Your task to perform on an android device: Open CNN.com Image 0: 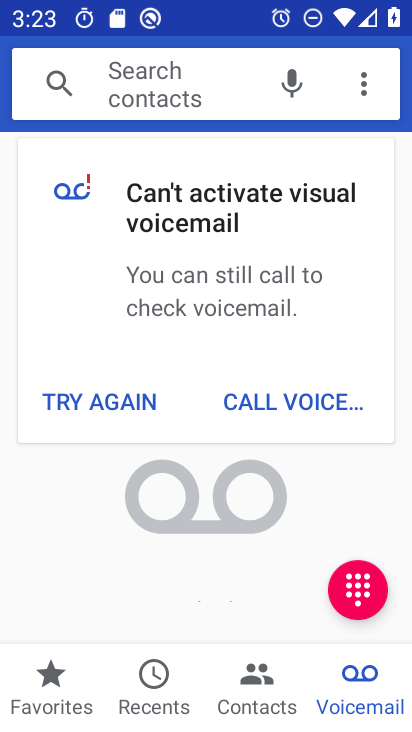
Step 0: press home button
Your task to perform on an android device: Open CNN.com Image 1: 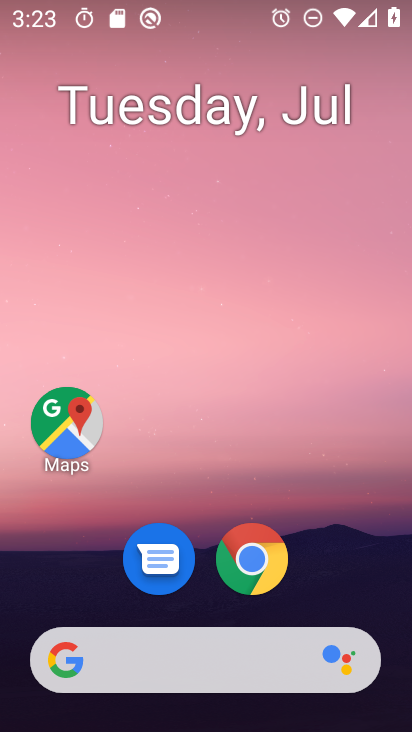
Step 1: drag from (360, 546) to (371, 169)
Your task to perform on an android device: Open CNN.com Image 2: 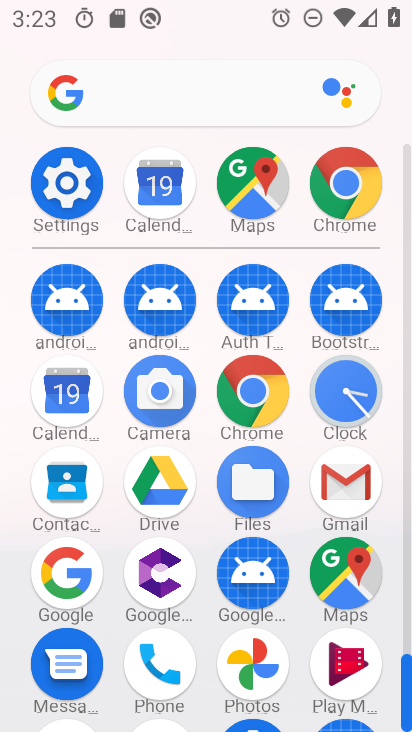
Step 2: click (267, 398)
Your task to perform on an android device: Open CNN.com Image 3: 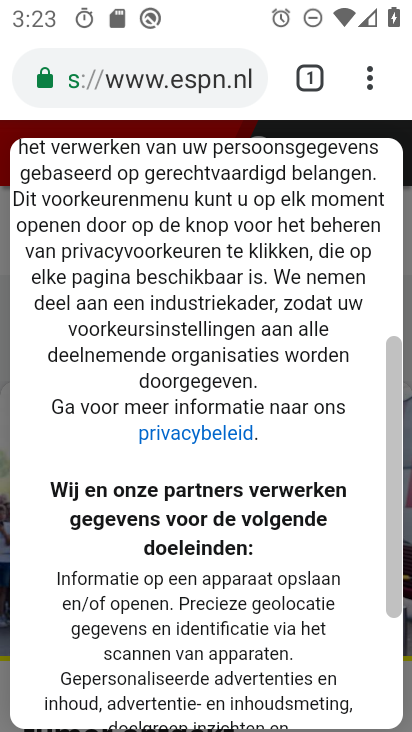
Step 3: click (199, 86)
Your task to perform on an android device: Open CNN.com Image 4: 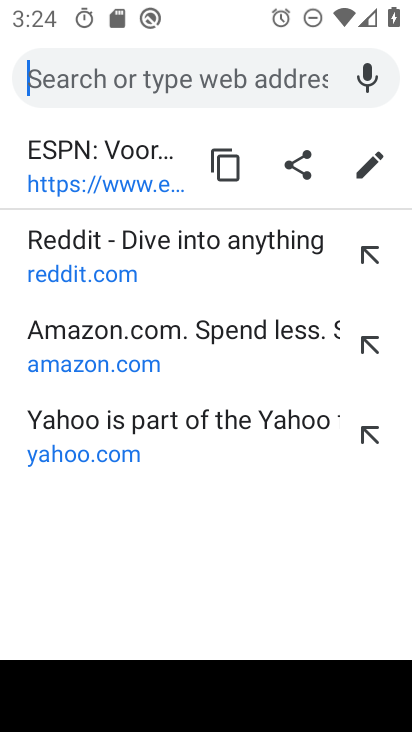
Step 4: type "cnn.com"
Your task to perform on an android device: Open CNN.com Image 5: 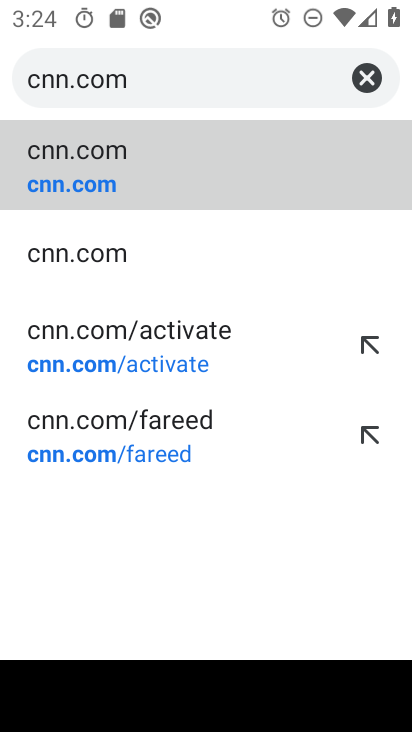
Step 5: click (359, 185)
Your task to perform on an android device: Open CNN.com Image 6: 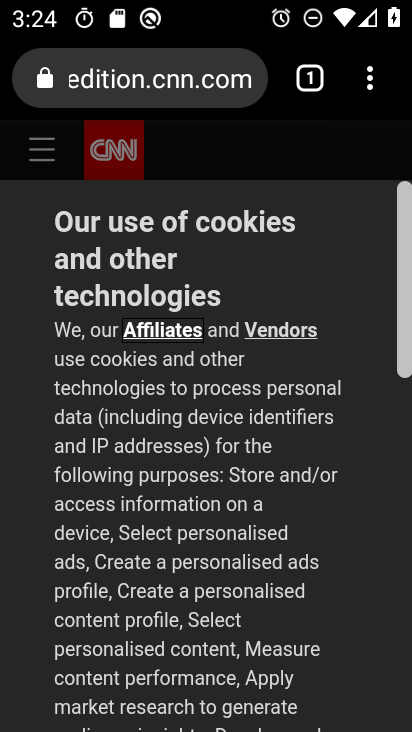
Step 6: task complete